Your task to perform on an android device: turn off priority inbox in the gmail app Image 0: 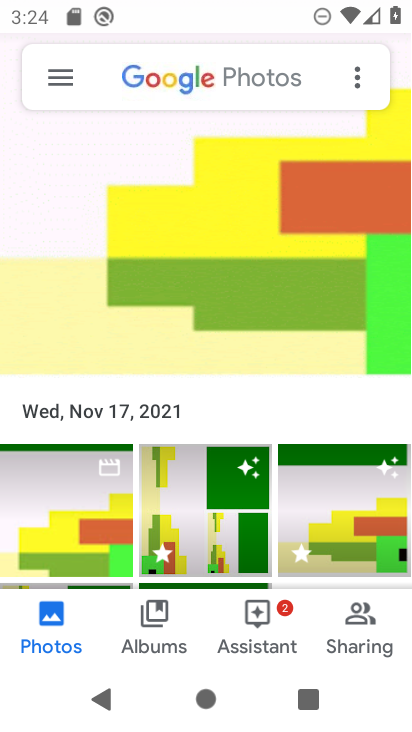
Step 0: press home button
Your task to perform on an android device: turn off priority inbox in the gmail app Image 1: 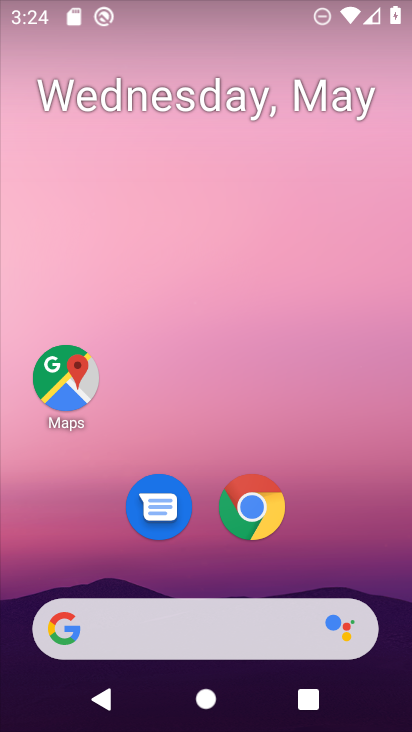
Step 1: drag from (219, 557) to (311, 0)
Your task to perform on an android device: turn off priority inbox in the gmail app Image 2: 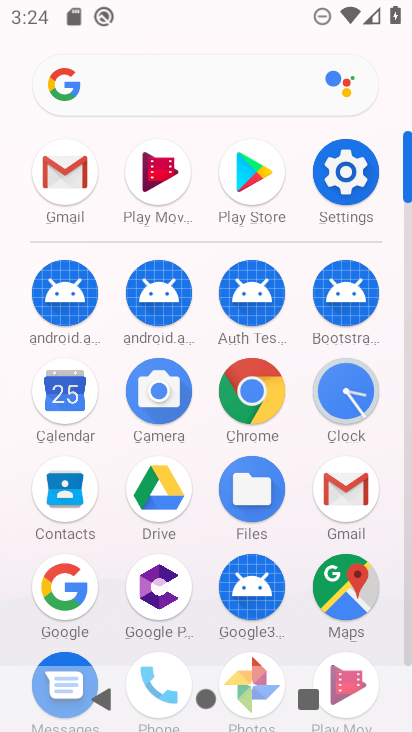
Step 2: click (350, 490)
Your task to perform on an android device: turn off priority inbox in the gmail app Image 3: 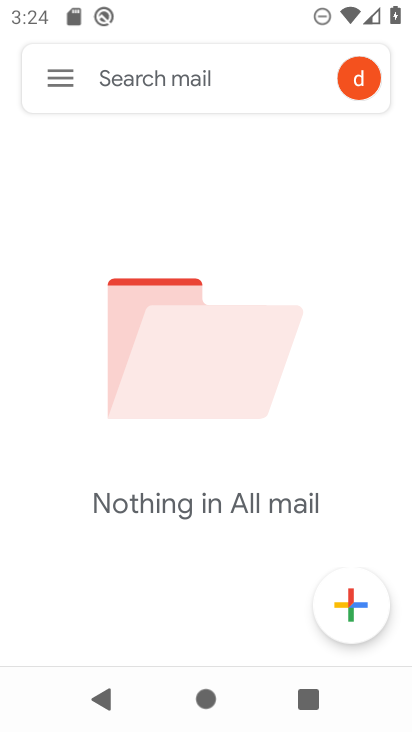
Step 3: click (56, 87)
Your task to perform on an android device: turn off priority inbox in the gmail app Image 4: 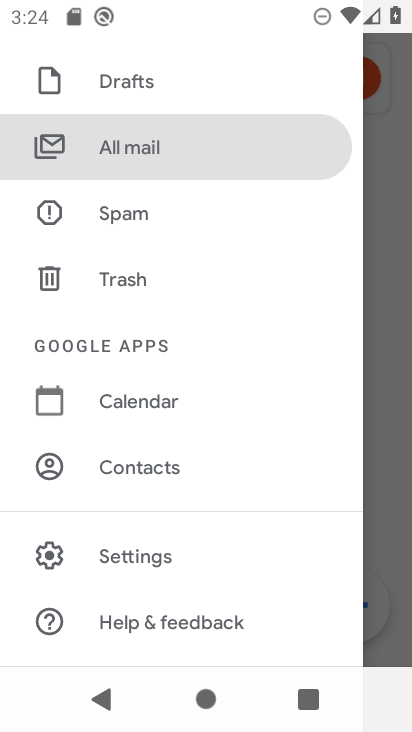
Step 4: click (134, 562)
Your task to perform on an android device: turn off priority inbox in the gmail app Image 5: 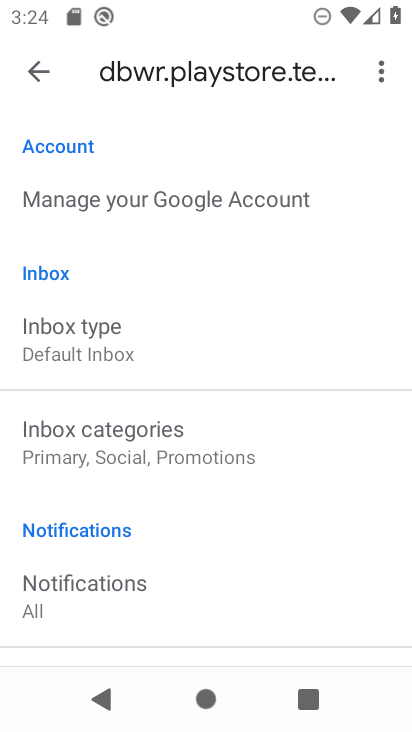
Step 5: click (99, 356)
Your task to perform on an android device: turn off priority inbox in the gmail app Image 6: 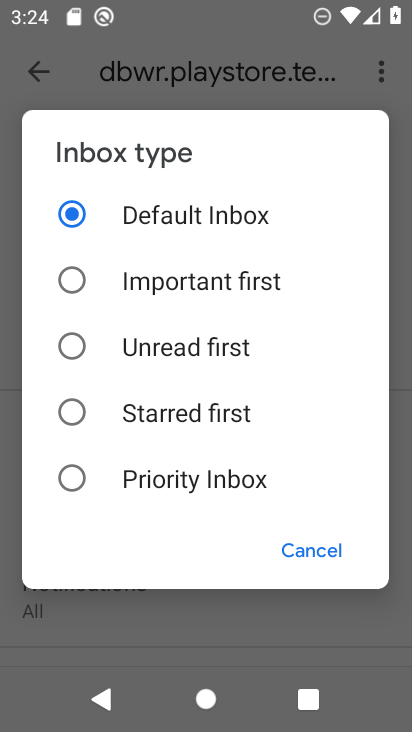
Step 6: click (65, 475)
Your task to perform on an android device: turn off priority inbox in the gmail app Image 7: 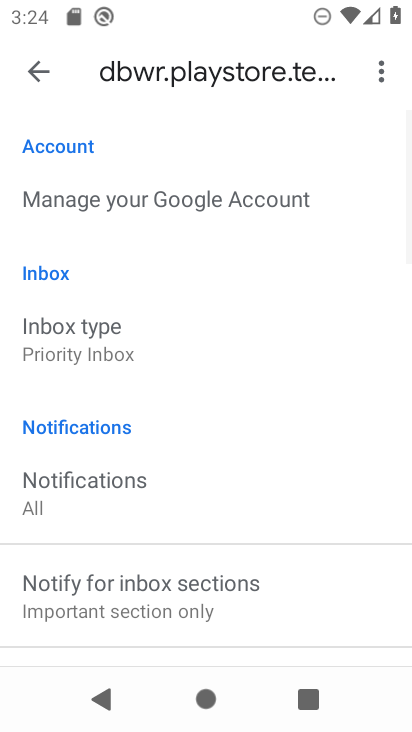
Step 7: task complete